Your task to perform on an android device: turn off priority inbox in the gmail app Image 0: 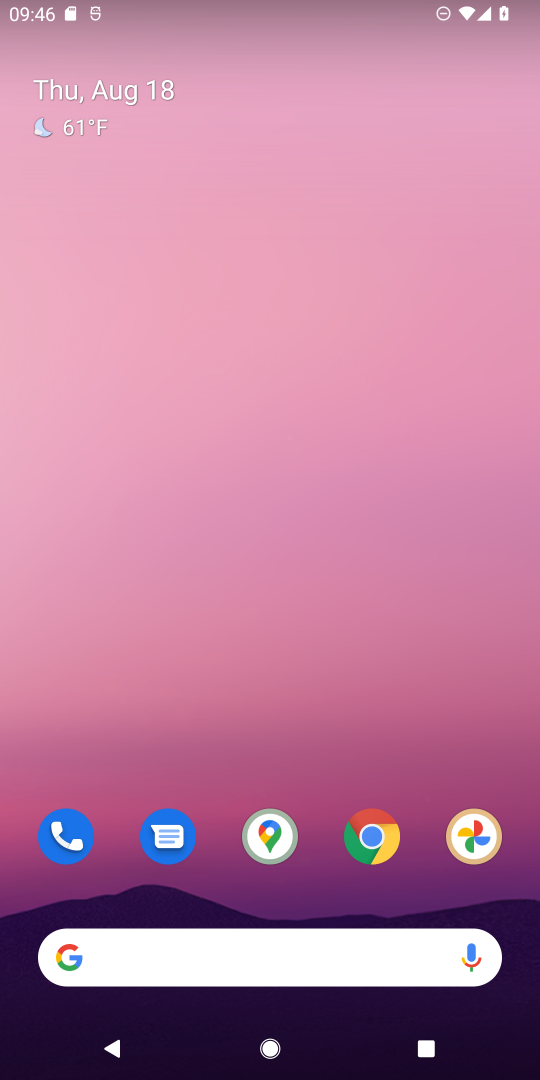
Step 0: drag from (315, 753) to (308, 160)
Your task to perform on an android device: turn off priority inbox in the gmail app Image 1: 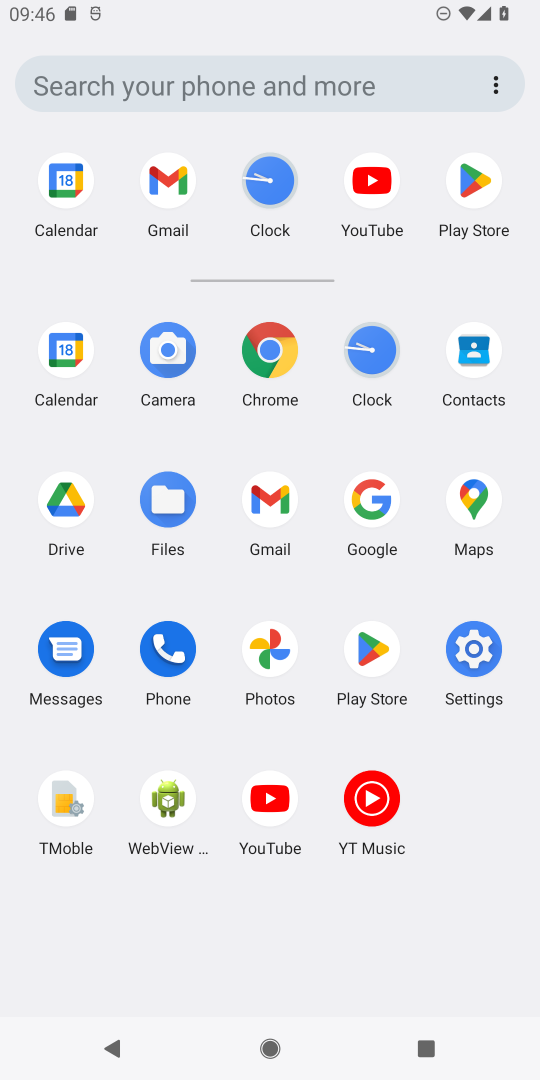
Step 1: click (268, 505)
Your task to perform on an android device: turn off priority inbox in the gmail app Image 2: 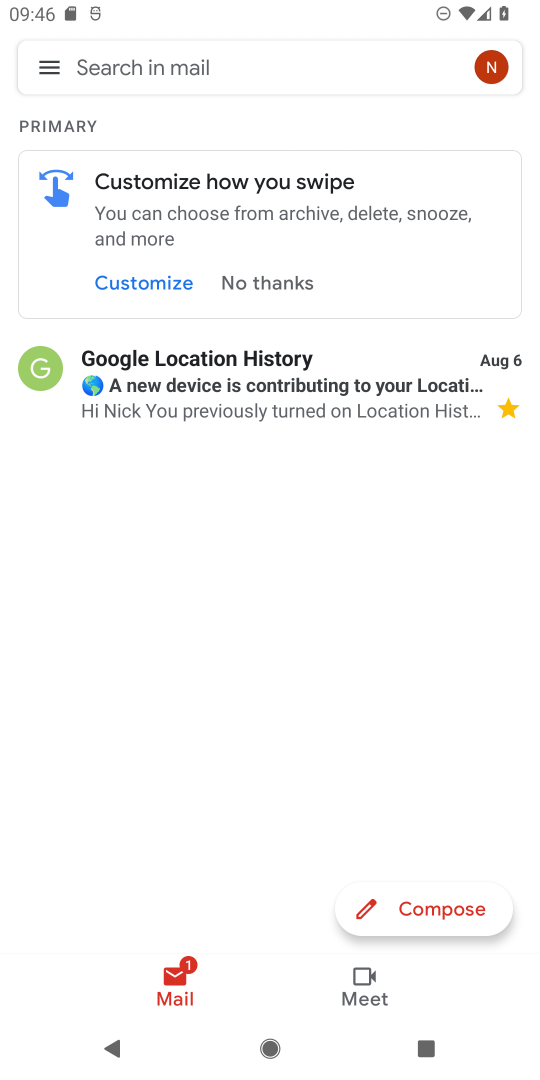
Step 2: press home button
Your task to perform on an android device: turn off priority inbox in the gmail app Image 3: 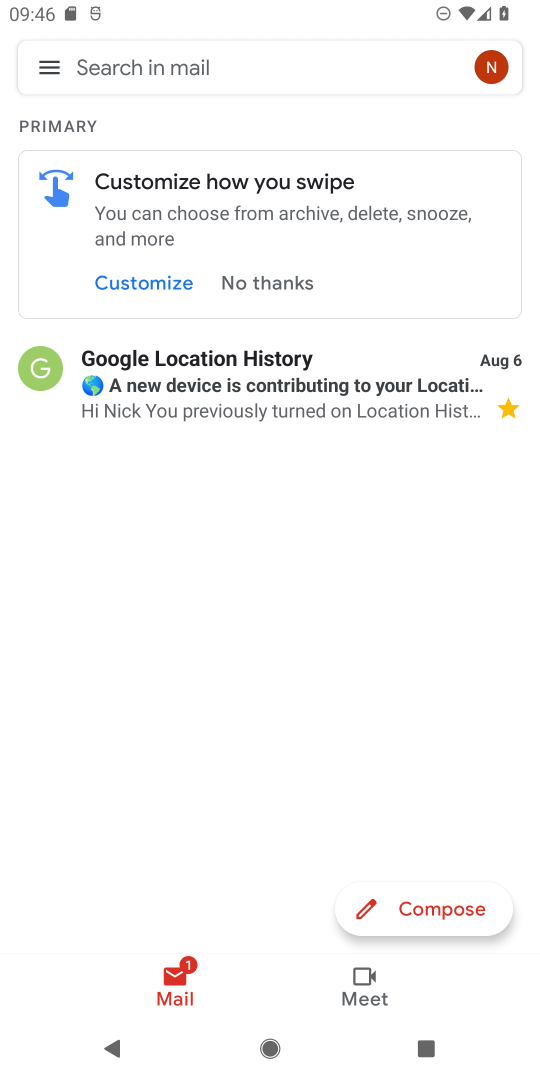
Step 3: press home button
Your task to perform on an android device: turn off priority inbox in the gmail app Image 4: 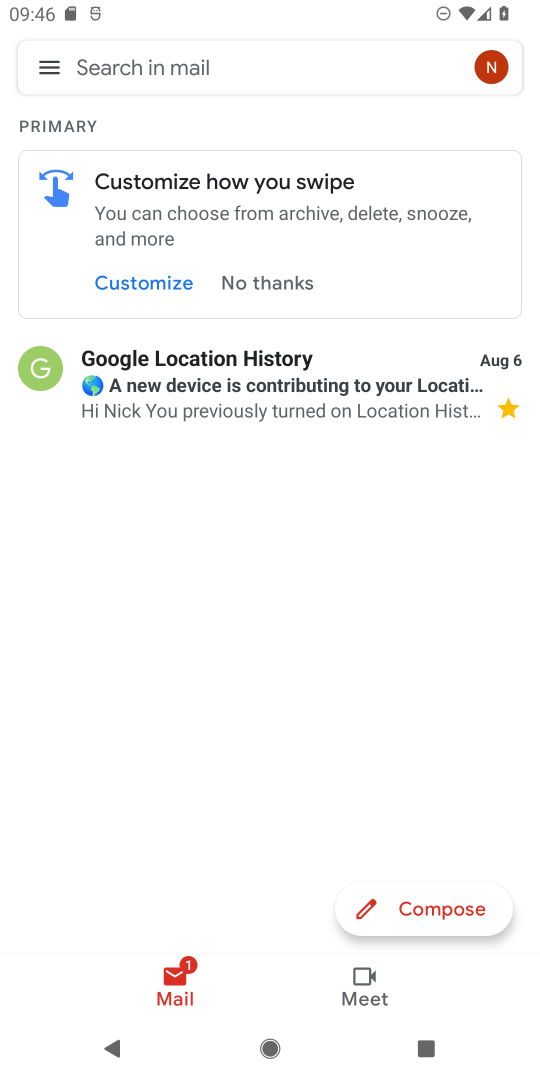
Step 4: press home button
Your task to perform on an android device: turn off priority inbox in the gmail app Image 5: 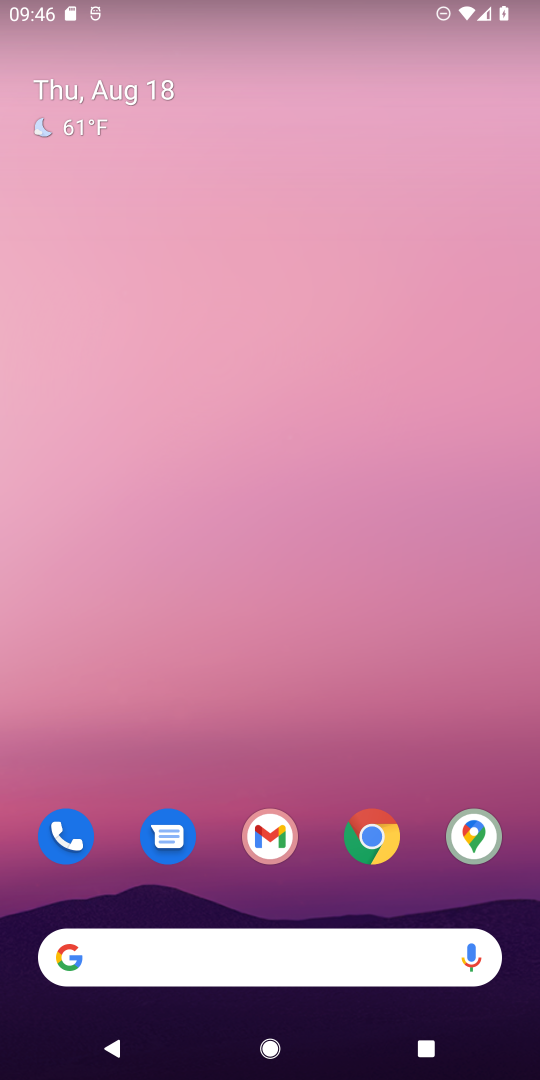
Step 5: drag from (294, 729) to (296, 10)
Your task to perform on an android device: turn off priority inbox in the gmail app Image 6: 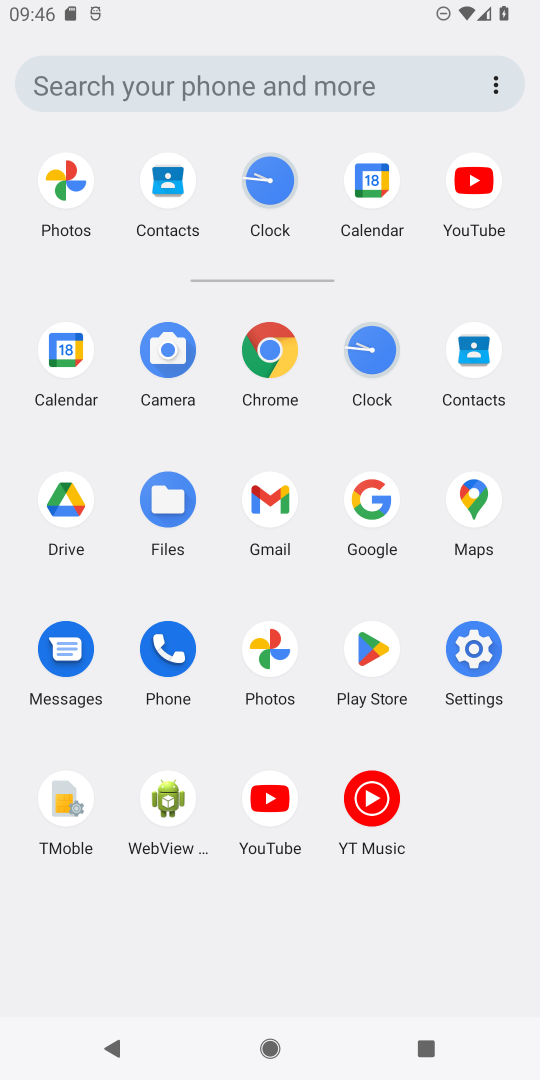
Step 6: click (281, 475)
Your task to perform on an android device: turn off priority inbox in the gmail app Image 7: 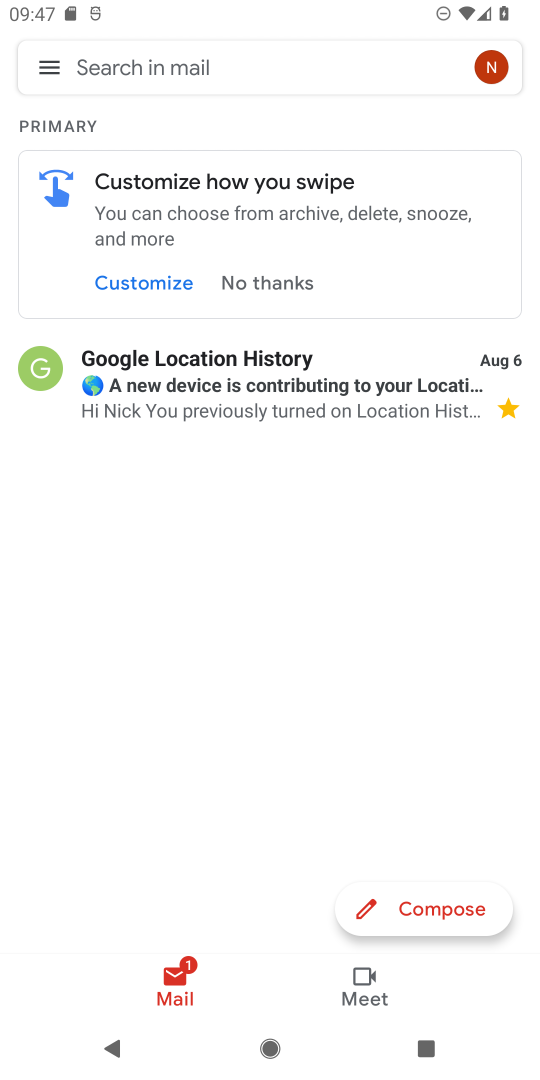
Step 7: click (17, 113)
Your task to perform on an android device: turn off priority inbox in the gmail app Image 8: 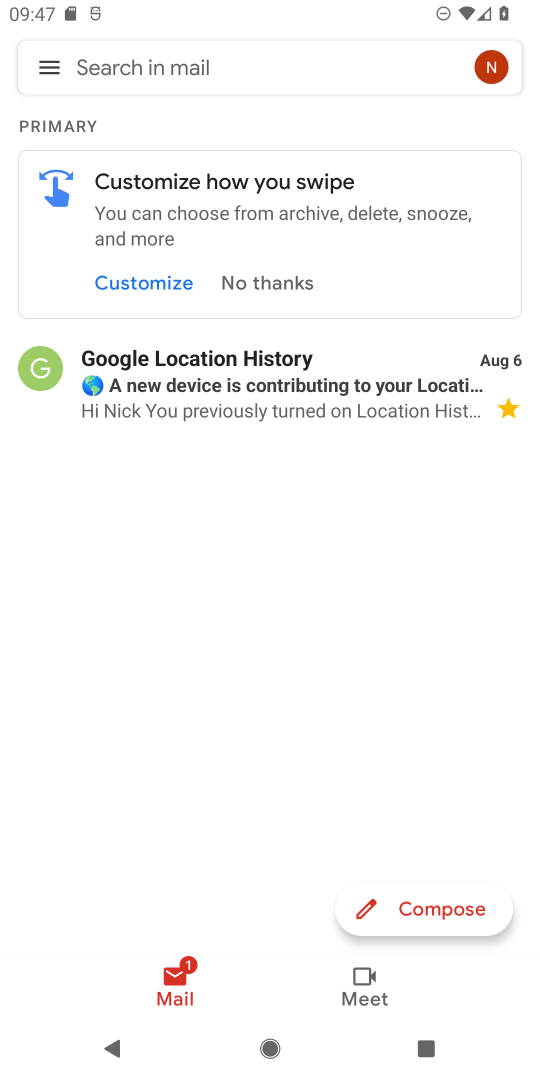
Step 8: click (34, 78)
Your task to perform on an android device: turn off priority inbox in the gmail app Image 9: 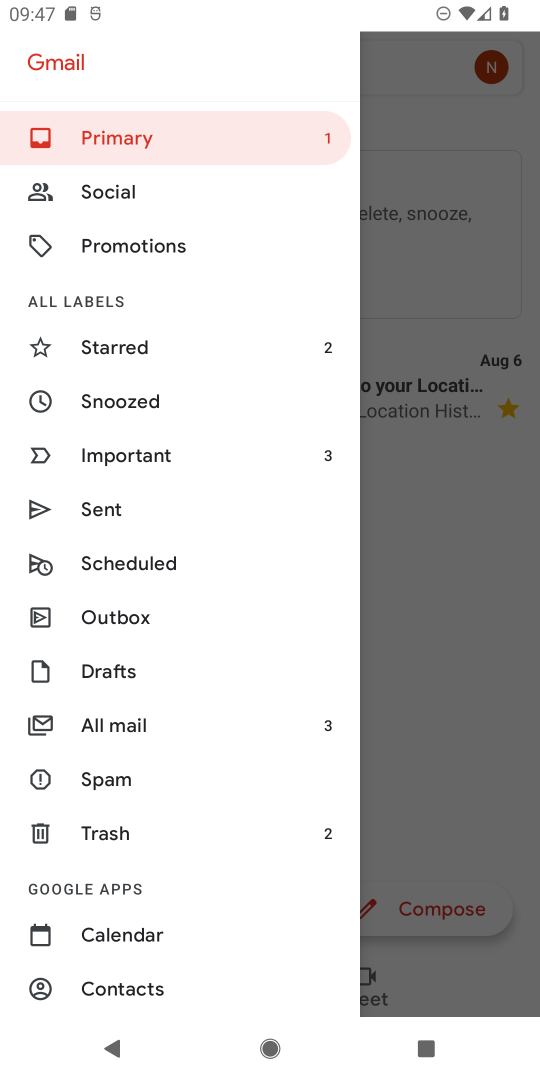
Step 9: drag from (47, 991) to (275, 393)
Your task to perform on an android device: turn off priority inbox in the gmail app Image 10: 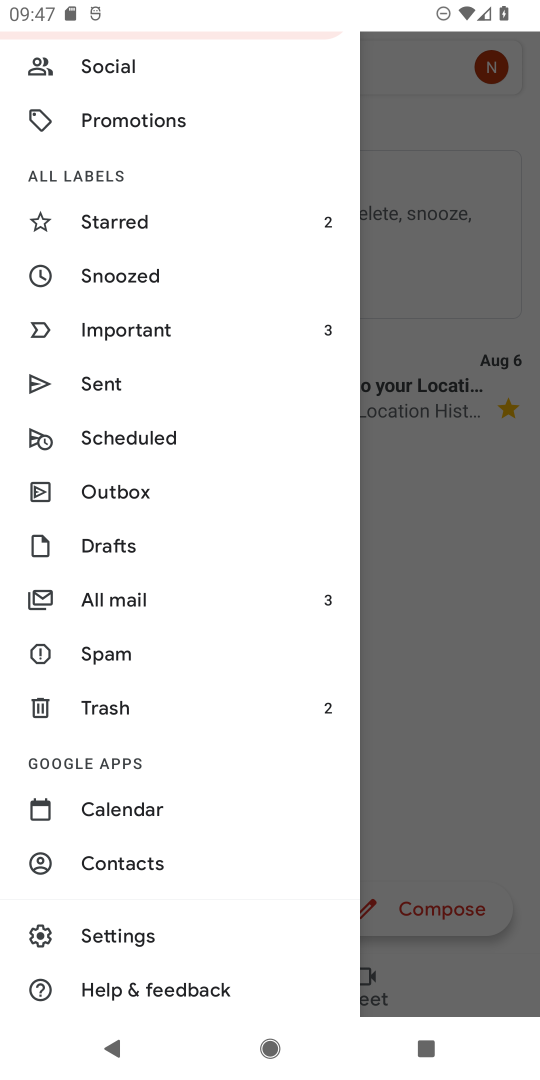
Step 10: click (119, 943)
Your task to perform on an android device: turn off priority inbox in the gmail app Image 11: 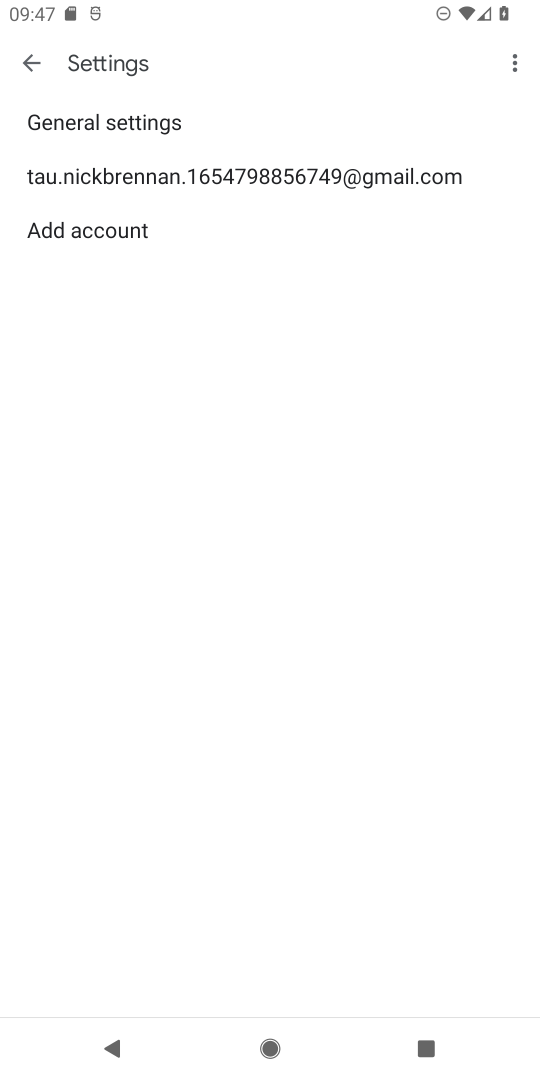
Step 11: click (192, 169)
Your task to perform on an android device: turn off priority inbox in the gmail app Image 12: 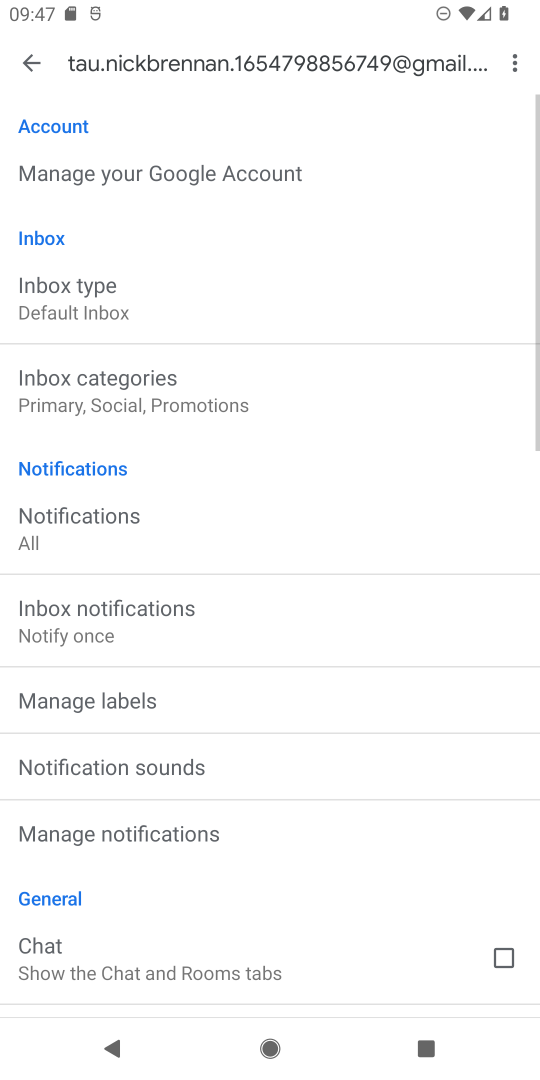
Step 12: click (82, 308)
Your task to perform on an android device: turn off priority inbox in the gmail app Image 13: 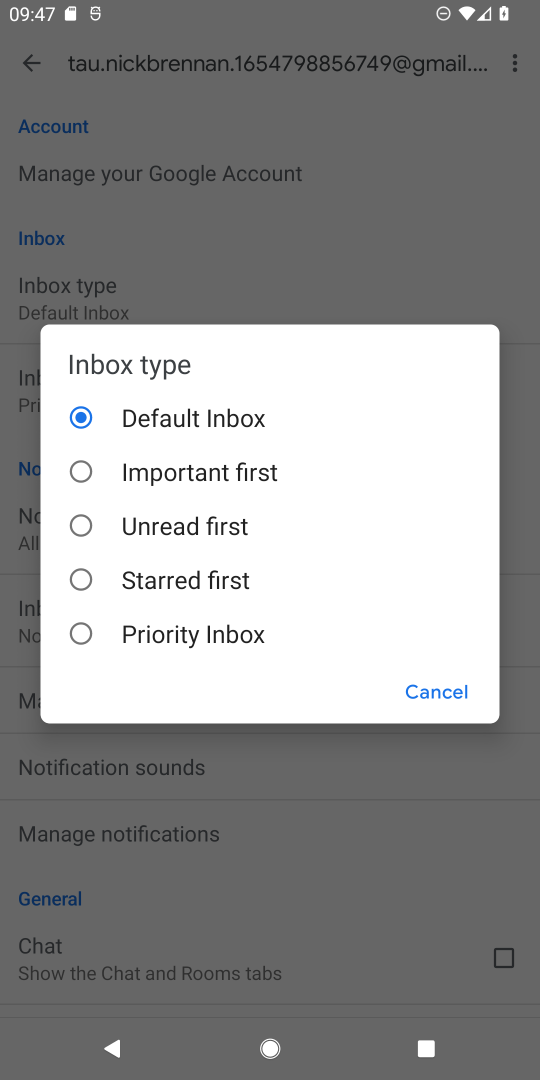
Step 13: task complete